Your task to perform on an android device: Do I have any events this weekend? Image 0: 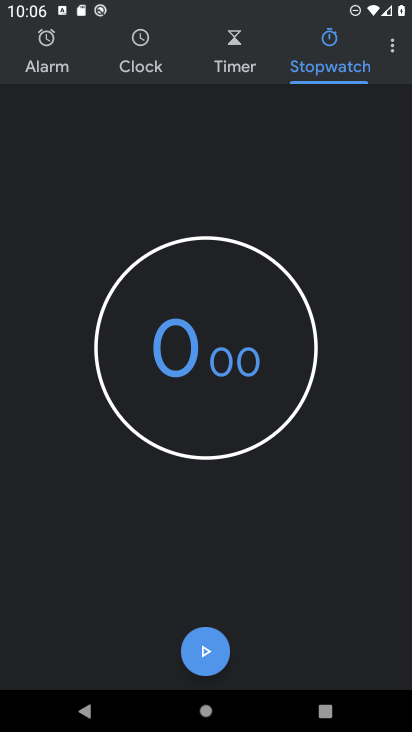
Step 0: press home button
Your task to perform on an android device: Do I have any events this weekend? Image 1: 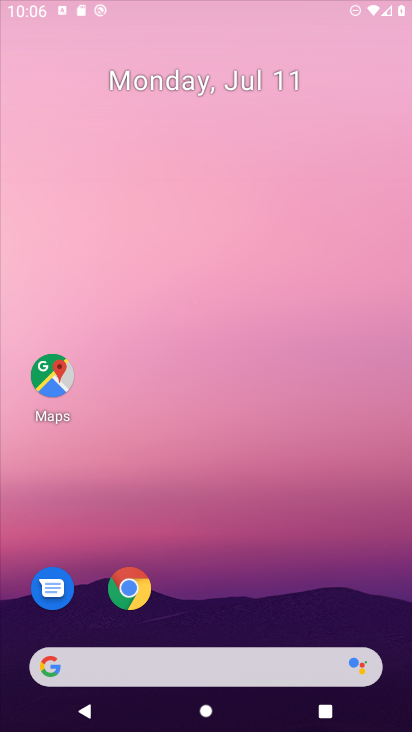
Step 1: drag from (389, 632) to (226, 12)
Your task to perform on an android device: Do I have any events this weekend? Image 2: 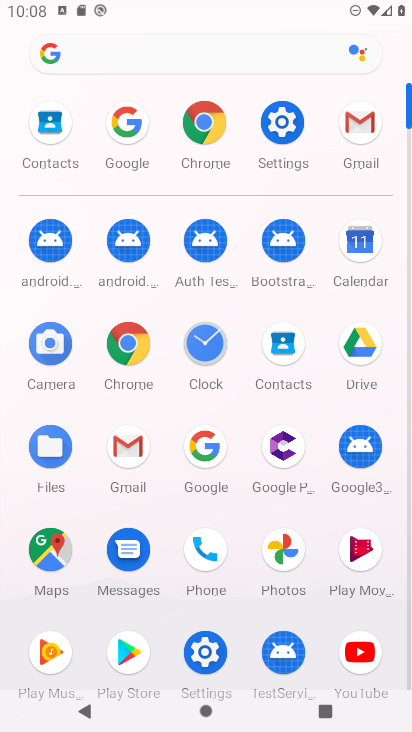
Step 2: click (363, 248)
Your task to perform on an android device: Do I have any events this weekend? Image 3: 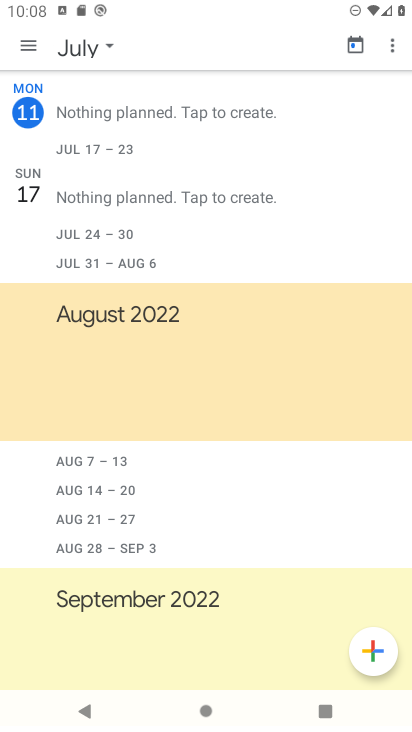
Step 3: task complete